Your task to perform on an android device: What's the weather? Image 0: 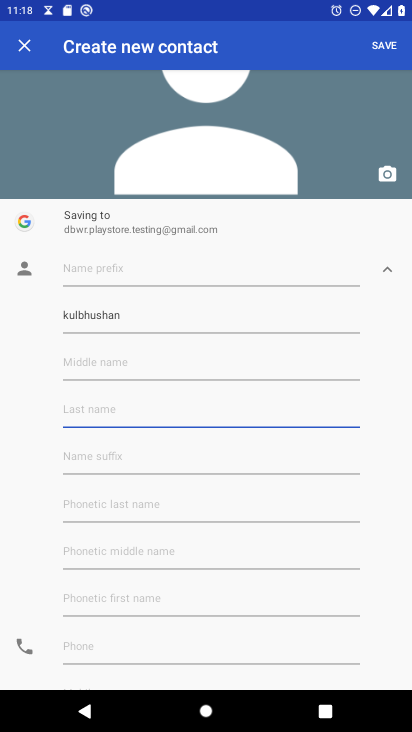
Step 0: press back button
Your task to perform on an android device: What's the weather? Image 1: 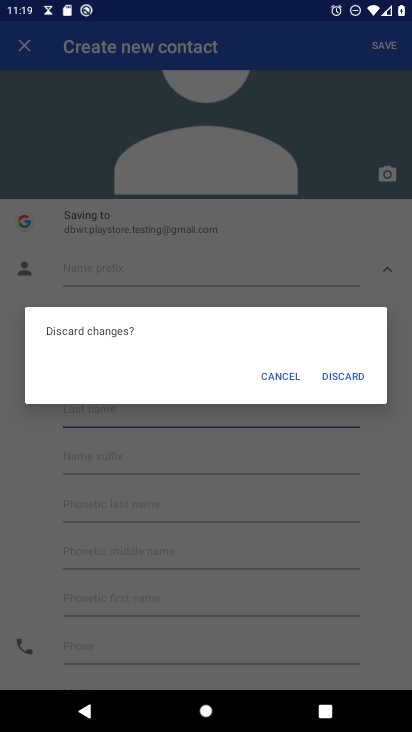
Step 1: press home button
Your task to perform on an android device: What's the weather? Image 2: 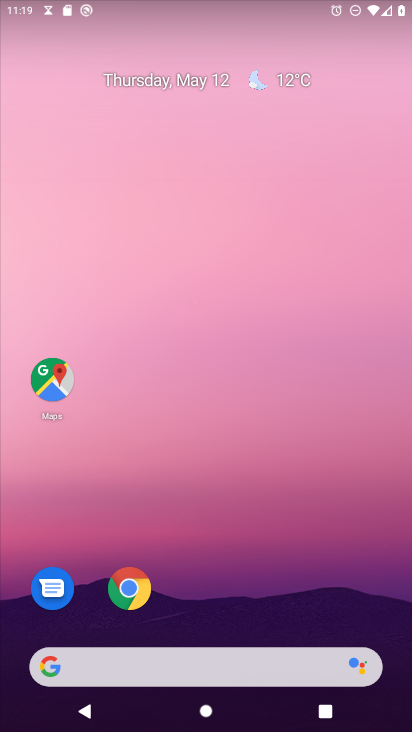
Step 2: drag from (224, 603) to (239, 126)
Your task to perform on an android device: What's the weather? Image 3: 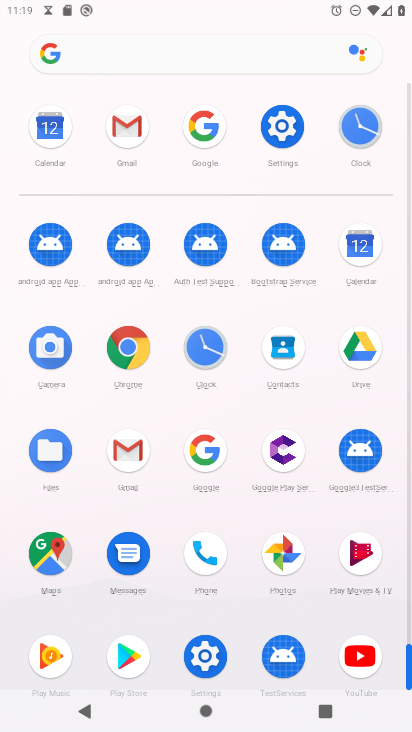
Step 3: click (198, 126)
Your task to perform on an android device: What's the weather? Image 4: 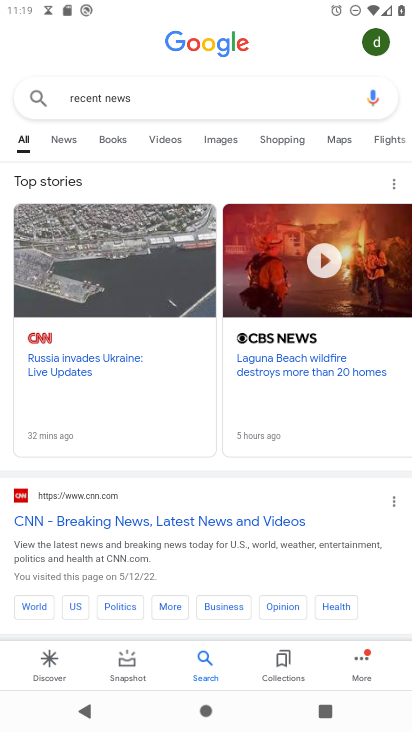
Step 4: click (212, 98)
Your task to perform on an android device: What's the weather? Image 5: 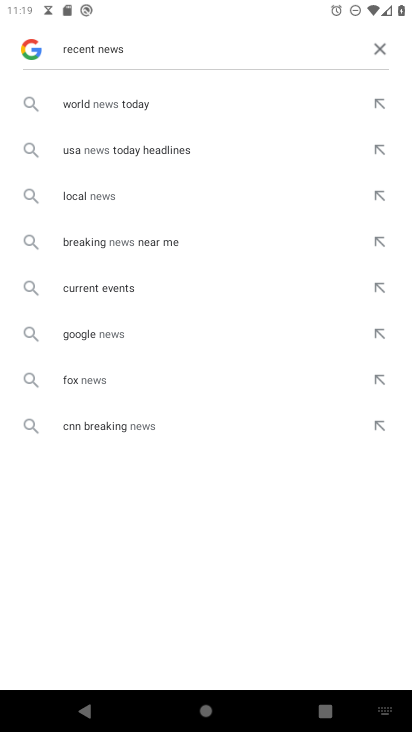
Step 5: click (387, 48)
Your task to perform on an android device: What's the weather? Image 6: 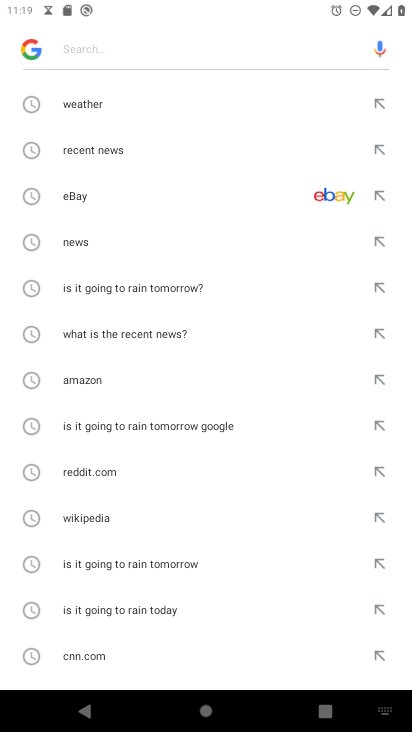
Step 6: click (88, 103)
Your task to perform on an android device: What's the weather? Image 7: 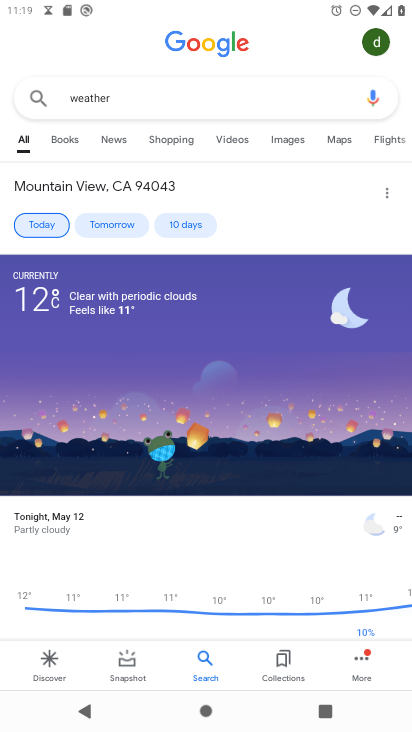
Step 7: task complete